Your task to perform on an android device: add a contact in the contacts app Image 0: 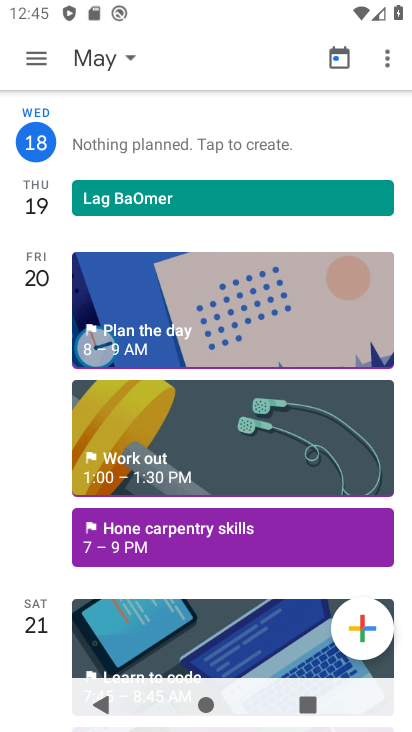
Step 0: press home button
Your task to perform on an android device: add a contact in the contacts app Image 1: 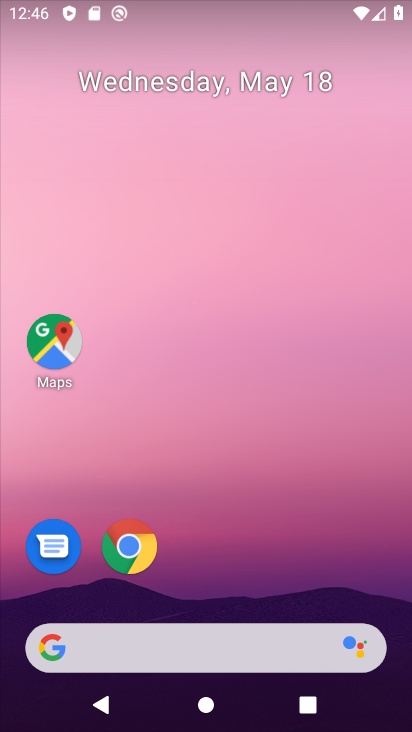
Step 1: drag from (252, 589) to (324, 12)
Your task to perform on an android device: add a contact in the contacts app Image 2: 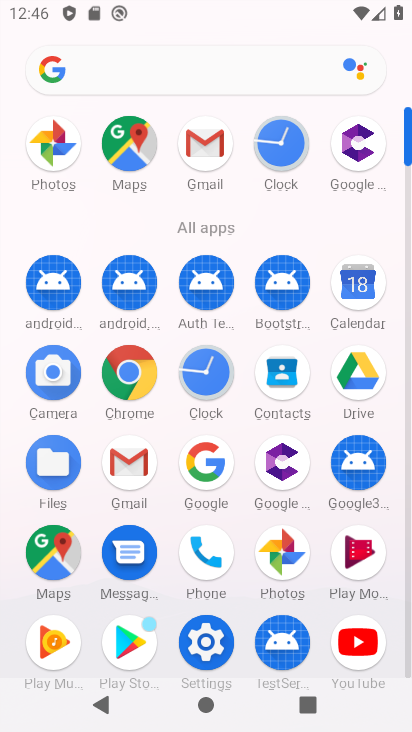
Step 2: click (289, 392)
Your task to perform on an android device: add a contact in the contacts app Image 3: 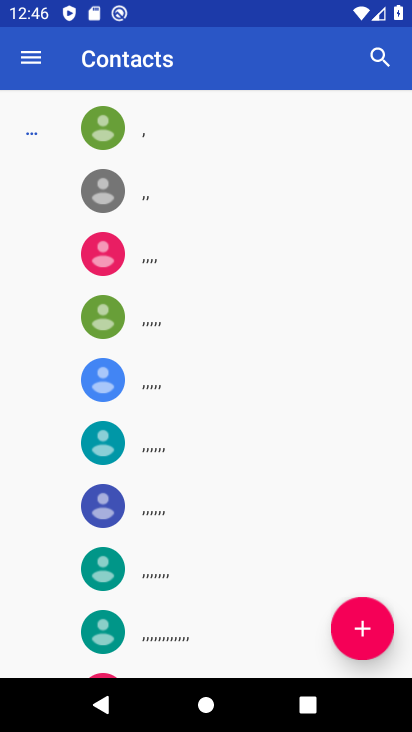
Step 3: click (343, 634)
Your task to perform on an android device: add a contact in the contacts app Image 4: 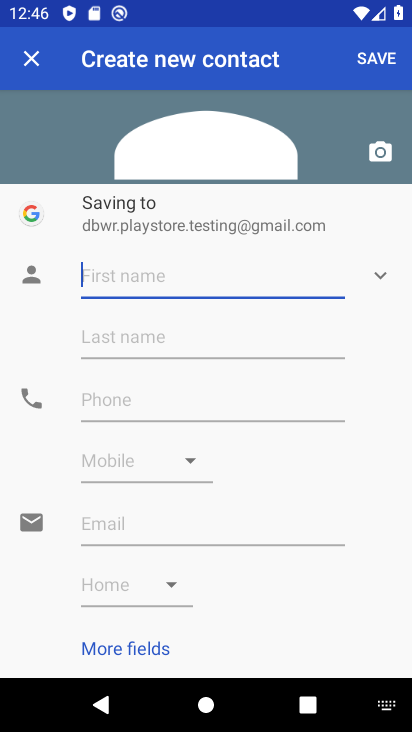
Step 4: type "fgffb"
Your task to perform on an android device: add a contact in the contacts app Image 5: 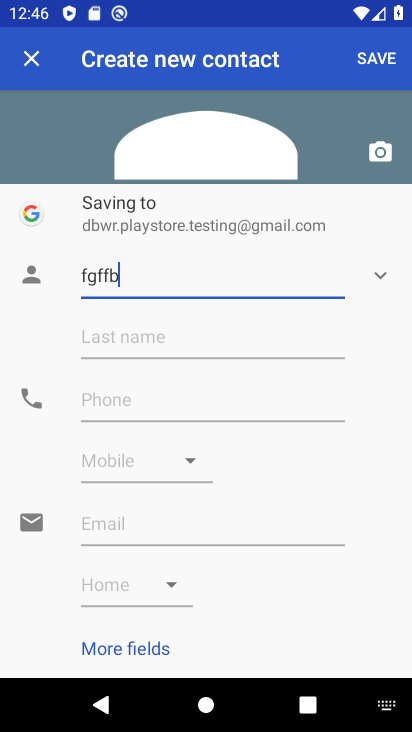
Step 5: click (191, 402)
Your task to perform on an android device: add a contact in the contacts app Image 6: 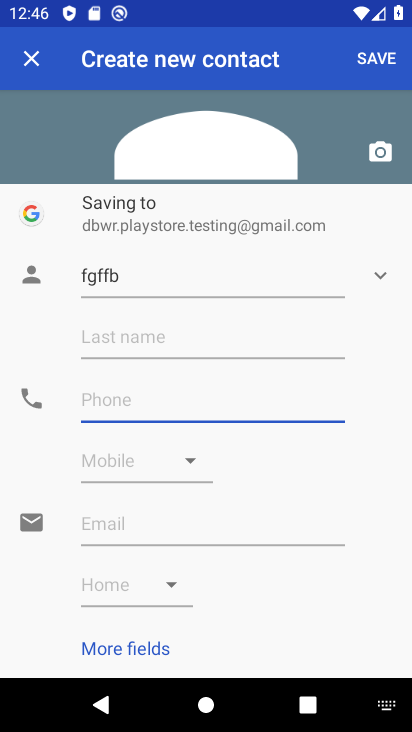
Step 6: type "877546"
Your task to perform on an android device: add a contact in the contacts app Image 7: 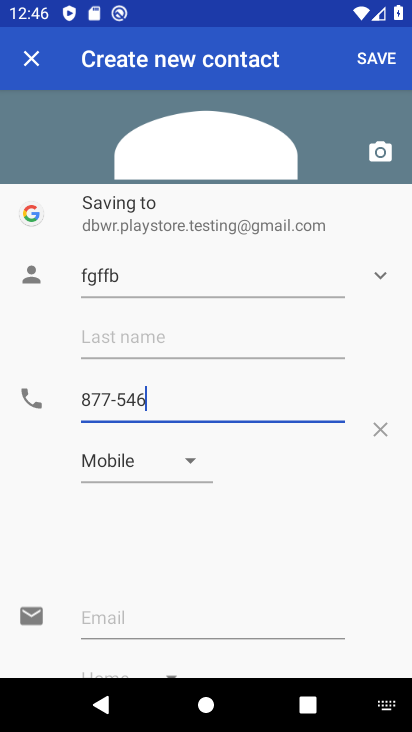
Step 7: type ""
Your task to perform on an android device: add a contact in the contacts app Image 8: 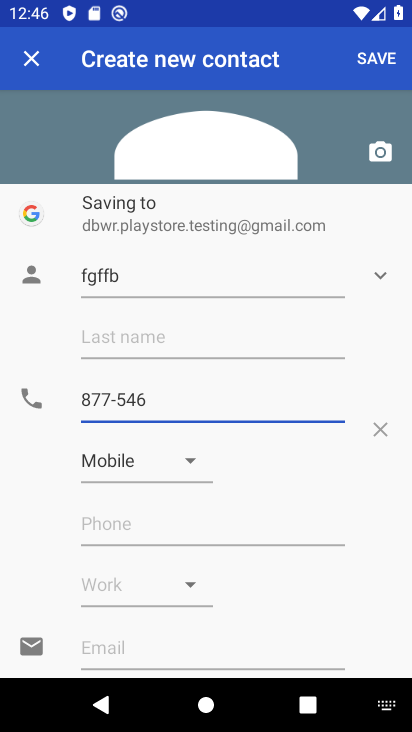
Step 8: click (379, 62)
Your task to perform on an android device: add a contact in the contacts app Image 9: 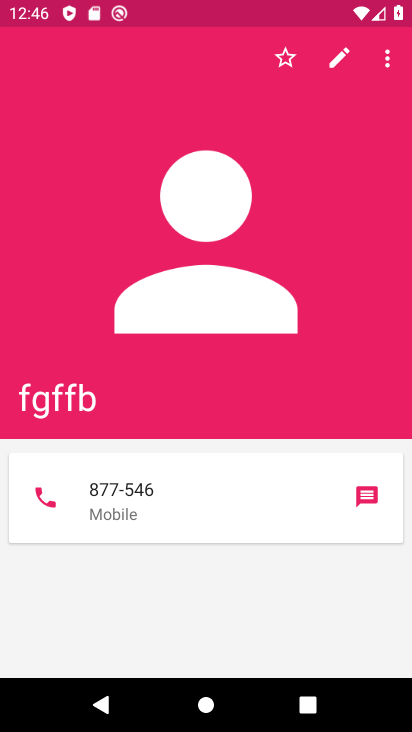
Step 9: task complete